Your task to perform on an android device: turn on location history Image 0: 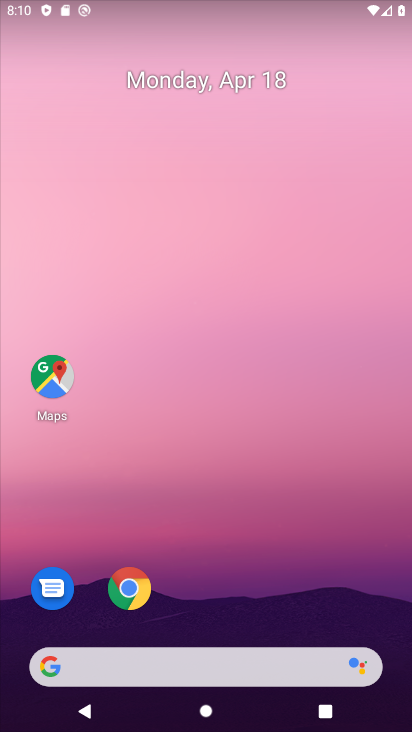
Step 0: drag from (234, 525) to (233, 54)
Your task to perform on an android device: turn on location history Image 1: 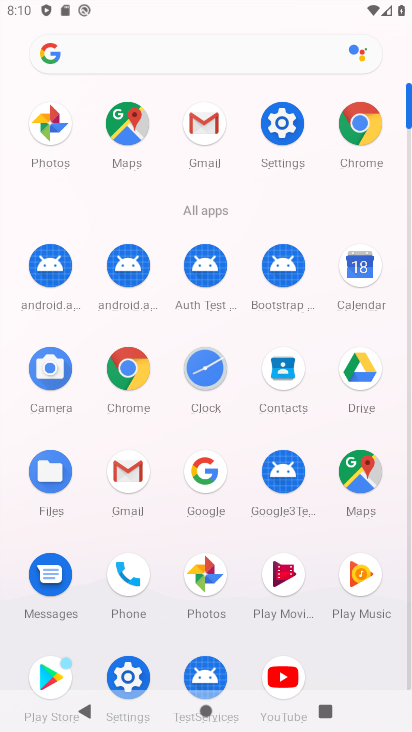
Step 1: click (119, 128)
Your task to perform on an android device: turn on location history Image 2: 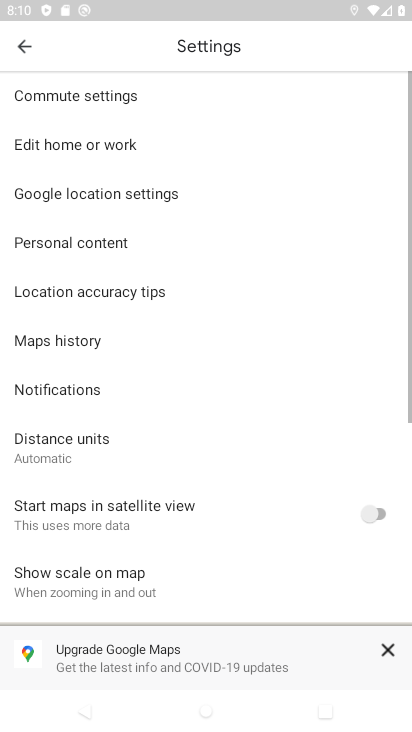
Step 2: click (22, 42)
Your task to perform on an android device: turn on location history Image 3: 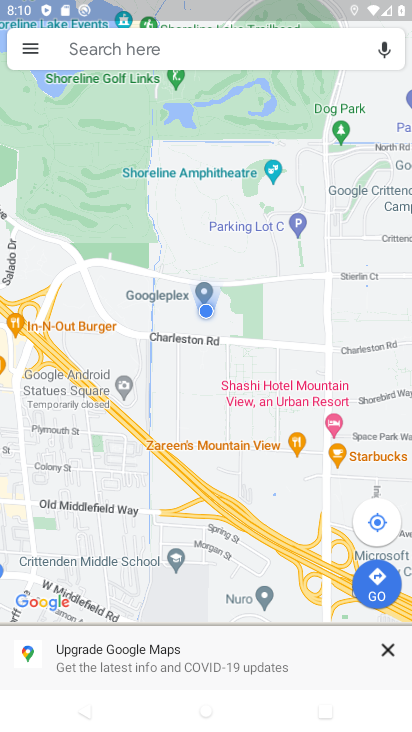
Step 3: click (32, 52)
Your task to perform on an android device: turn on location history Image 4: 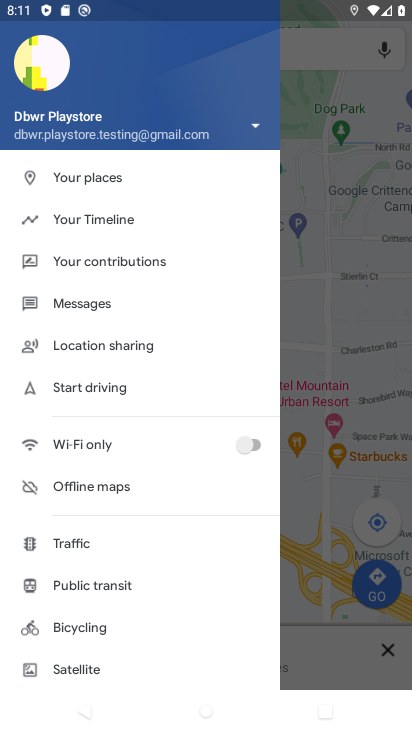
Step 4: click (92, 223)
Your task to perform on an android device: turn on location history Image 5: 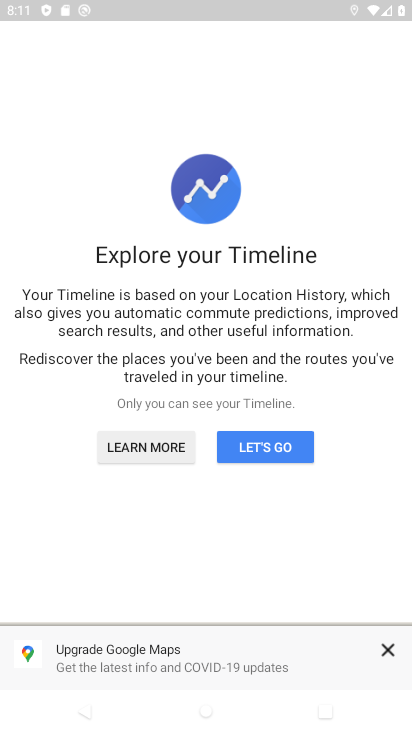
Step 5: click (385, 642)
Your task to perform on an android device: turn on location history Image 6: 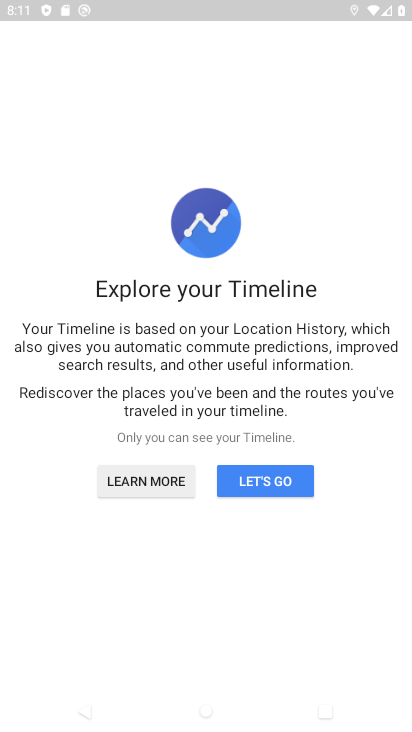
Step 6: click (260, 482)
Your task to perform on an android device: turn on location history Image 7: 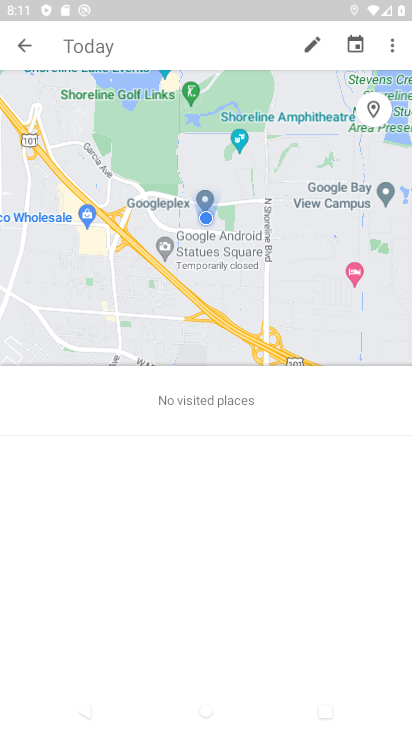
Step 7: click (394, 43)
Your task to perform on an android device: turn on location history Image 8: 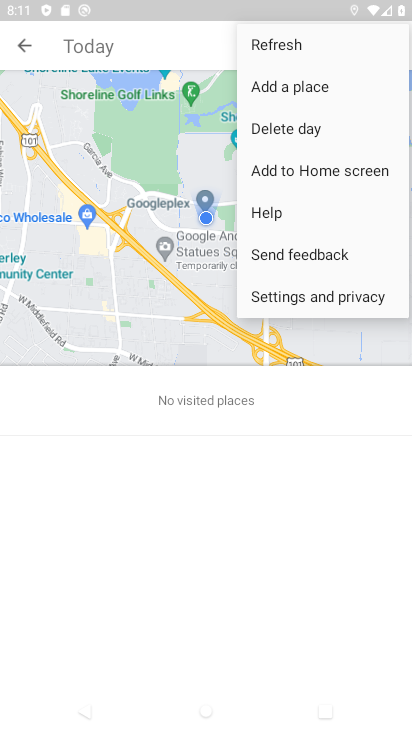
Step 8: click (325, 298)
Your task to perform on an android device: turn on location history Image 9: 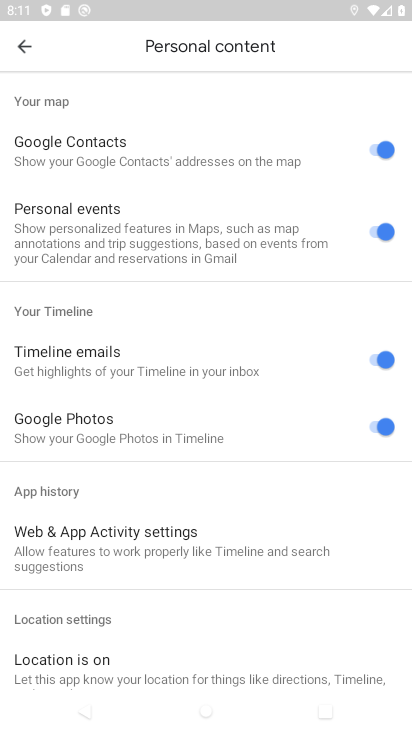
Step 9: drag from (227, 593) to (173, 198)
Your task to perform on an android device: turn on location history Image 10: 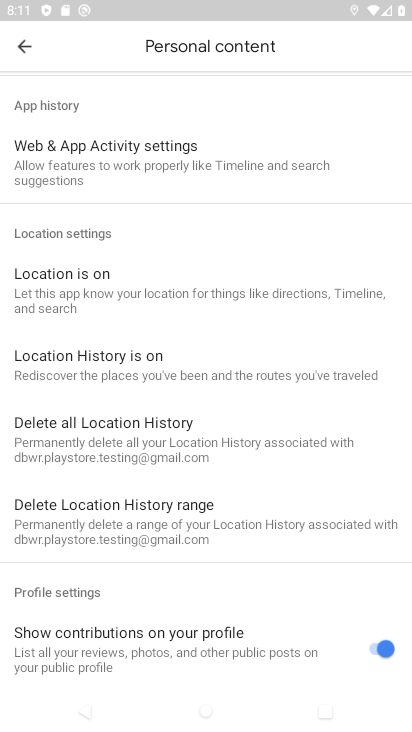
Step 10: click (87, 357)
Your task to perform on an android device: turn on location history Image 11: 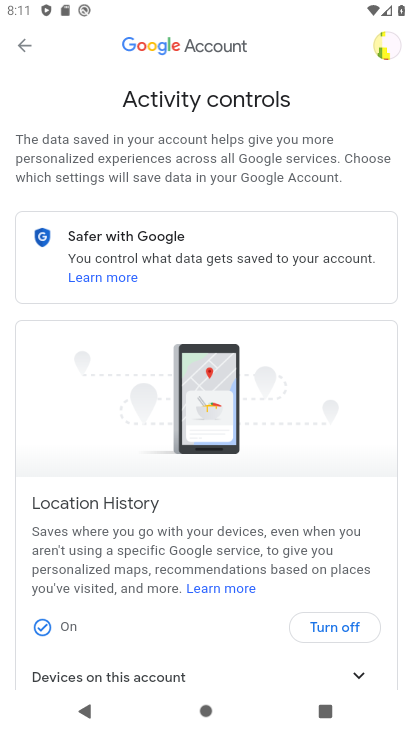
Step 11: task complete